Your task to perform on an android device: Open the calendar and show me this week's events Image 0: 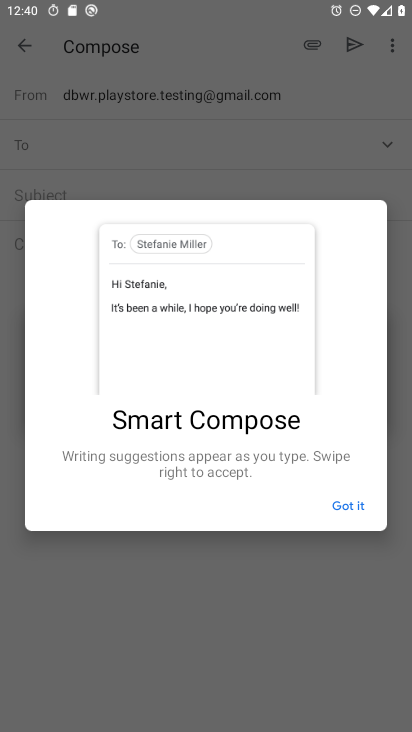
Step 0: press home button
Your task to perform on an android device: Open the calendar and show me this week's events Image 1: 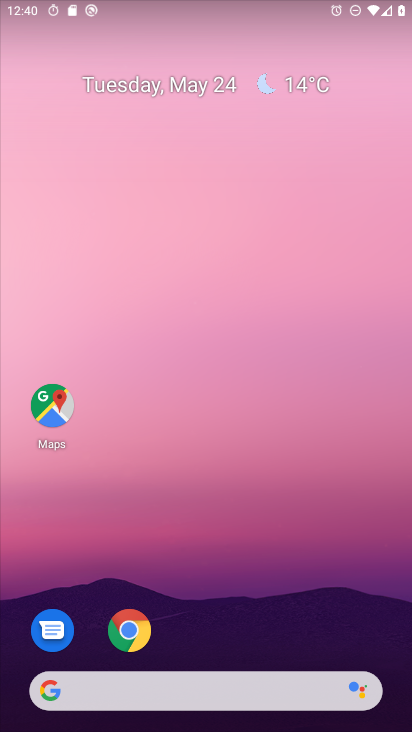
Step 1: drag from (391, 604) to (317, 74)
Your task to perform on an android device: Open the calendar and show me this week's events Image 2: 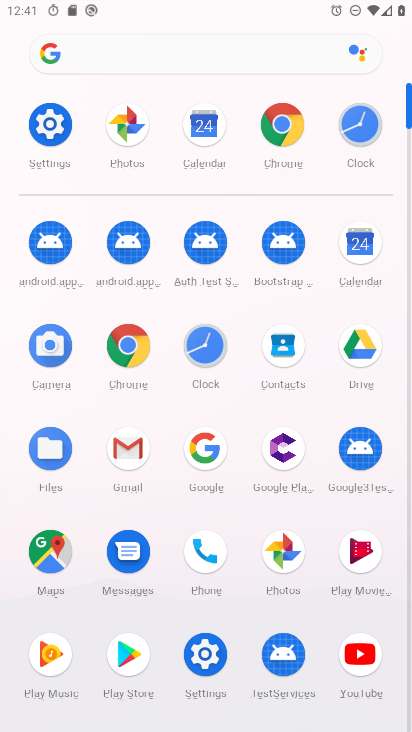
Step 2: click (366, 244)
Your task to perform on an android device: Open the calendar and show me this week's events Image 3: 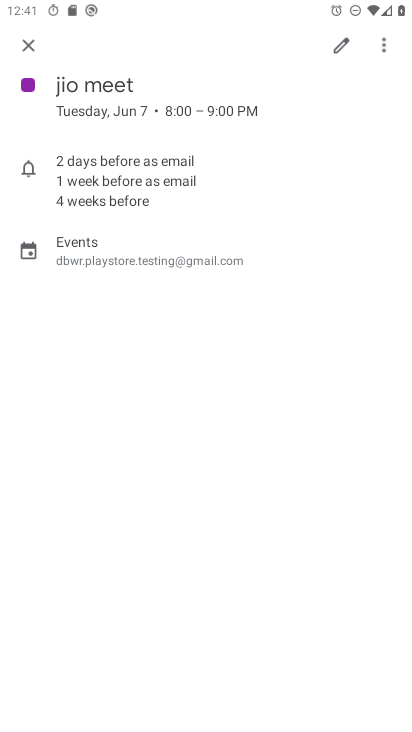
Step 3: click (27, 42)
Your task to perform on an android device: Open the calendar and show me this week's events Image 4: 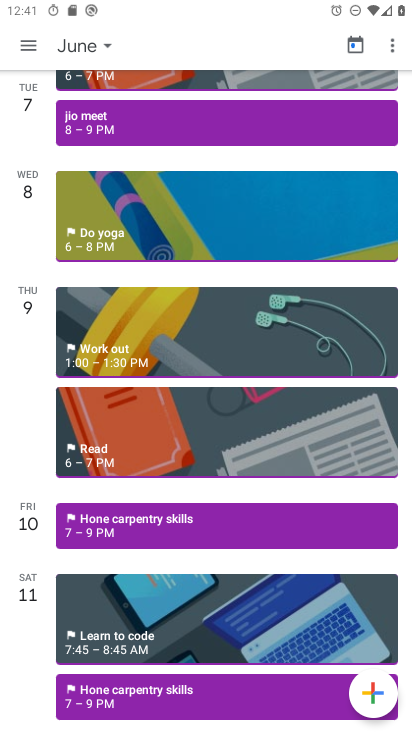
Step 4: task complete